Your task to perform on an android device: set an alarm Image 0: 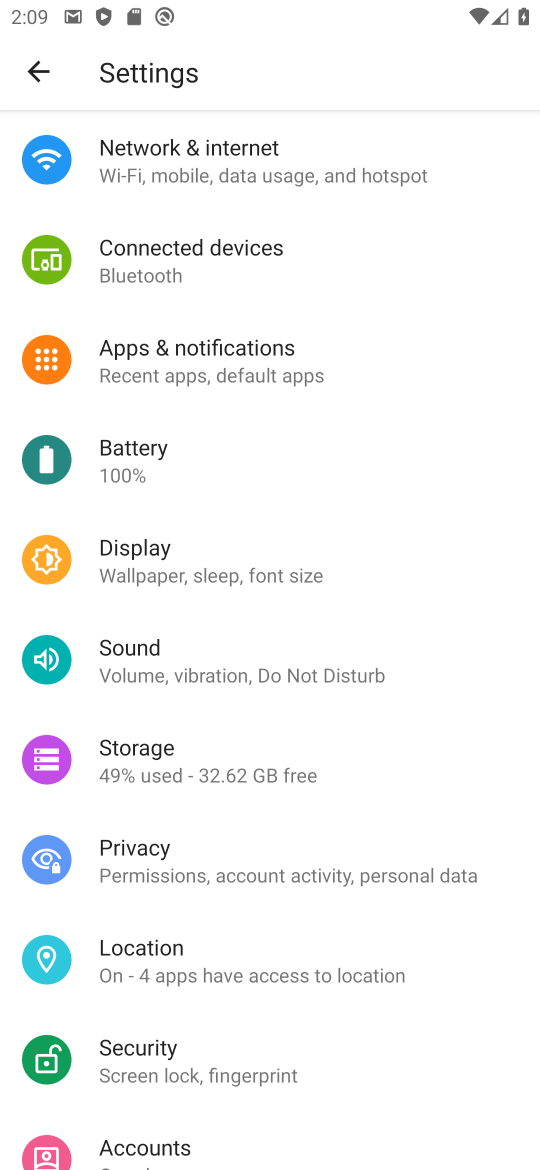
Step 0: press home button
Your task to perform on an android device: set an alarm Image 1: 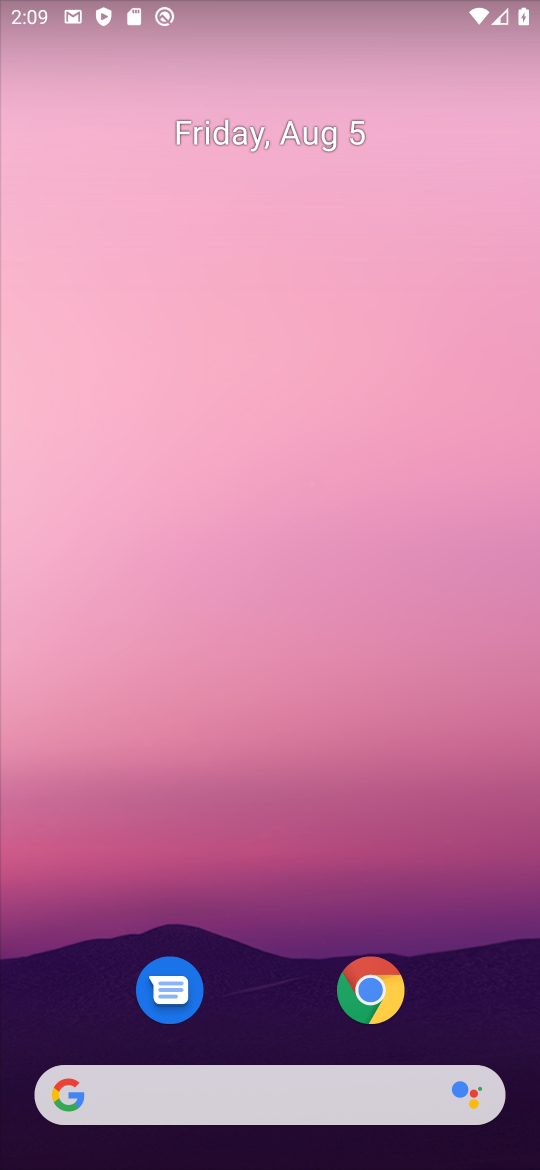
Step 1: drag from (247, 1085) to (129, 5)
Your task to perform on an android device: set an alarm Image 2: 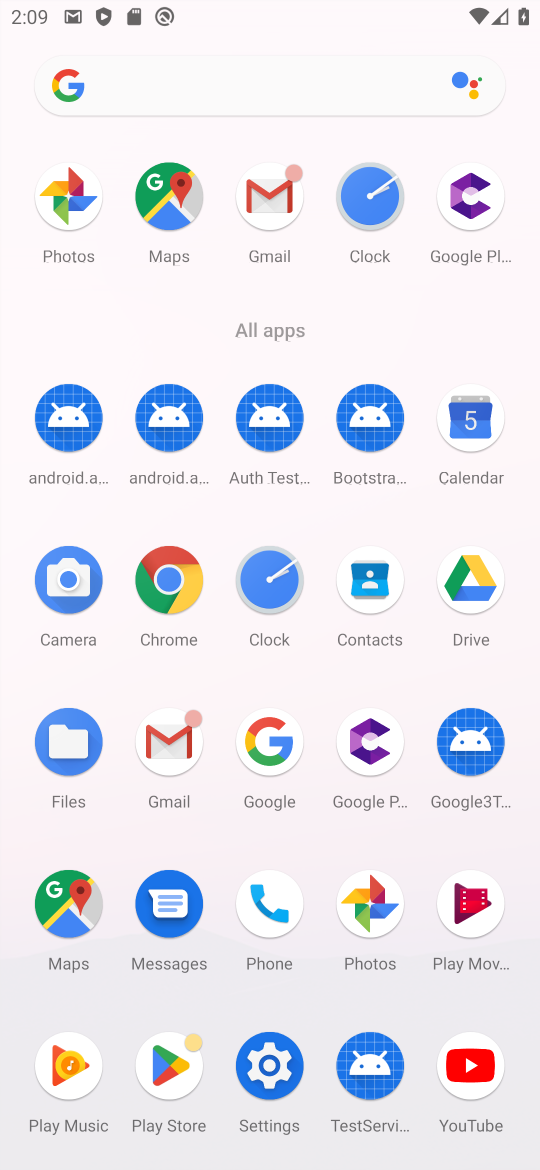
Step 2: click (264, 585)
Your task to perform on an android device: set an alarm Image 3: 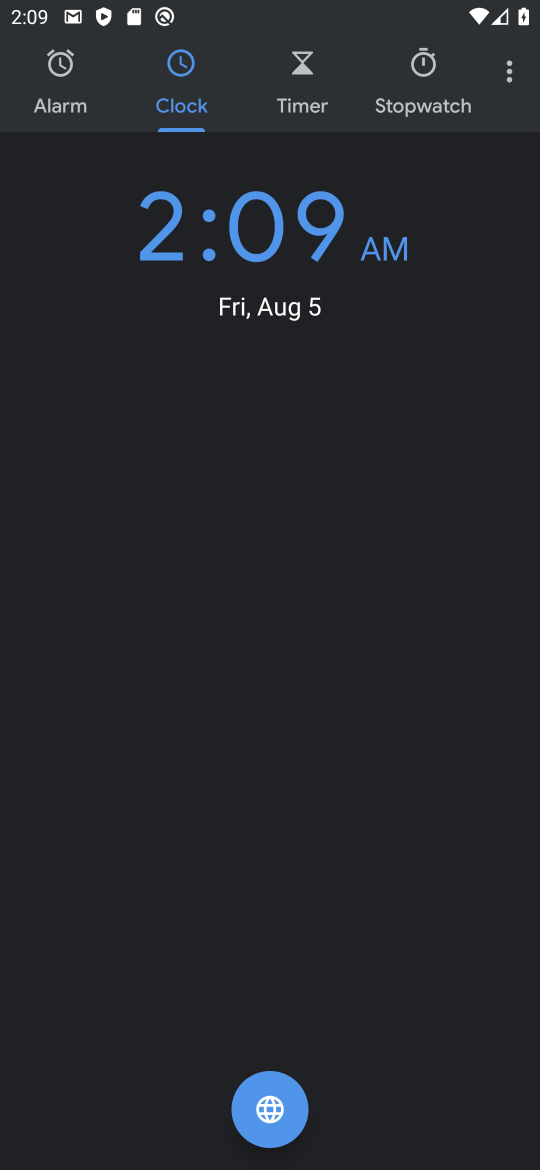
Step 3: click (58, 71)
Your task to perform on an android device: set an alarm Image 4: 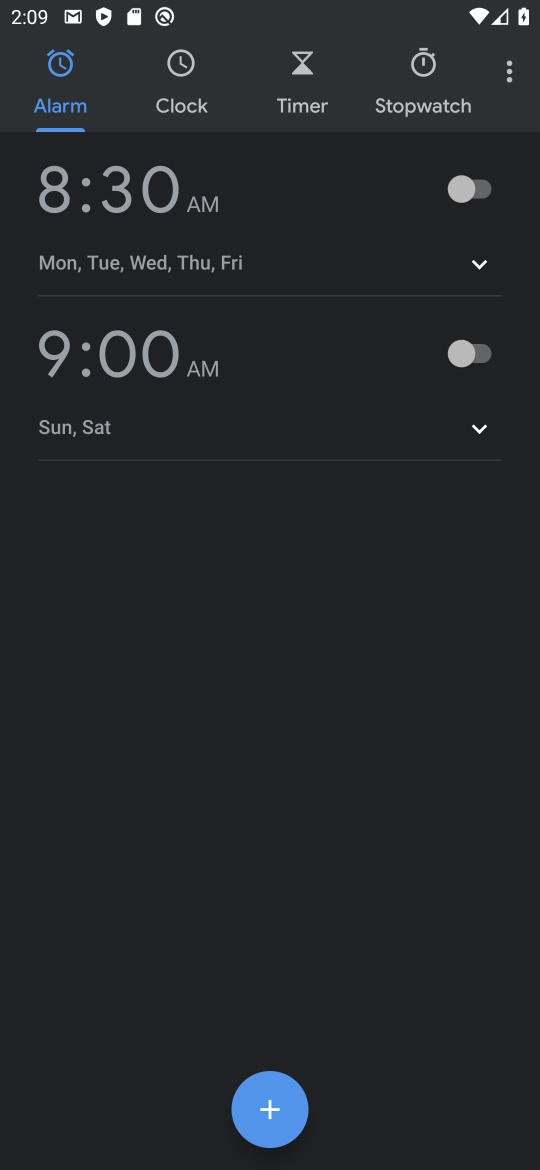
Step 4: click (286, 1082)
Your task to perform on an android device: set an alarm Image 5: 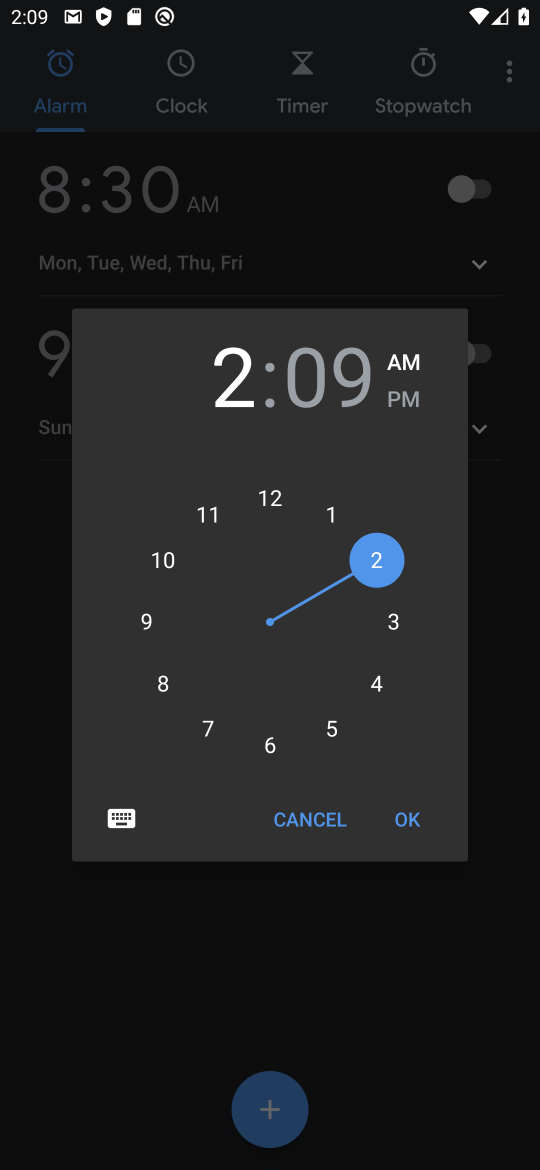
Step 5: click (272, 728)
Your task to perform on an android device: set an alarm Image 6: 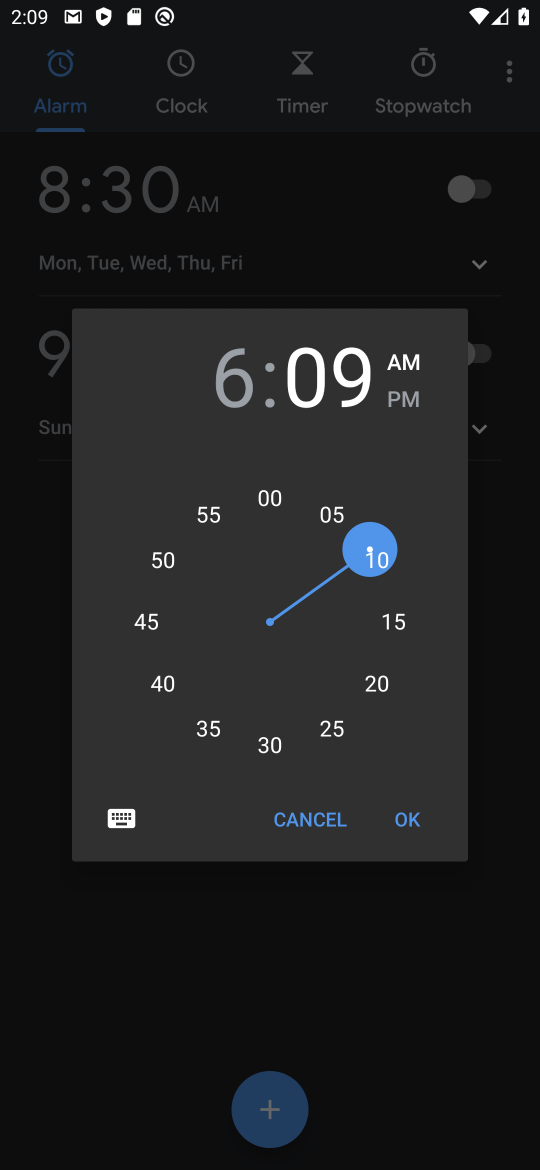
Step 6: click (416, 837)
Your task to perform on an android device: set an alarm Image 7: 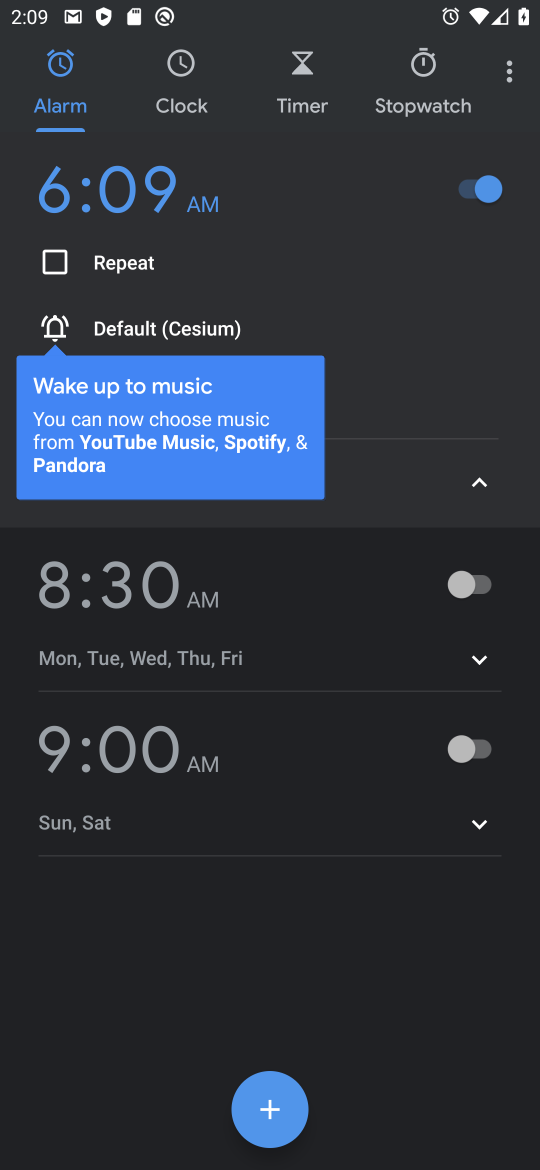
Step 7: task complete